Your task to perform on an android device: Open the phone app and click the voicemail tab. Image 0: 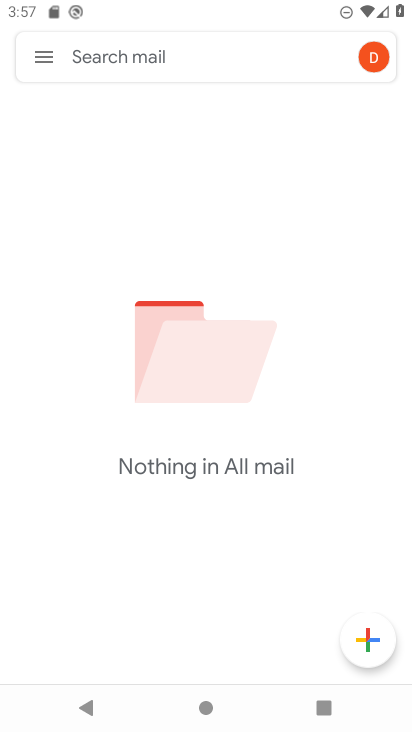
Step 0: press home button
Your task to perform on an android device: Open the phone app and click the voicemail tab. Image 1: 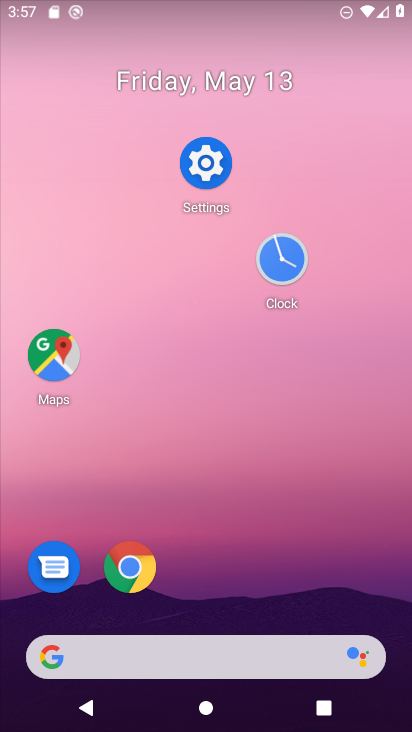
Step 1: drag from (237, 607) to (255, 234)
Your task to perform on an android device: Open the phone app and click the voicemail tab. Image 2: 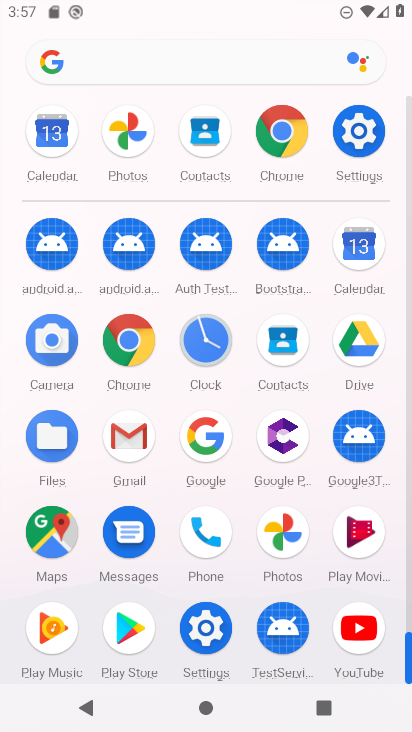
Step 2: click (217, 546)
Your task to perform on an android device: Open the phone app and click the voicemail tab. Image 3: 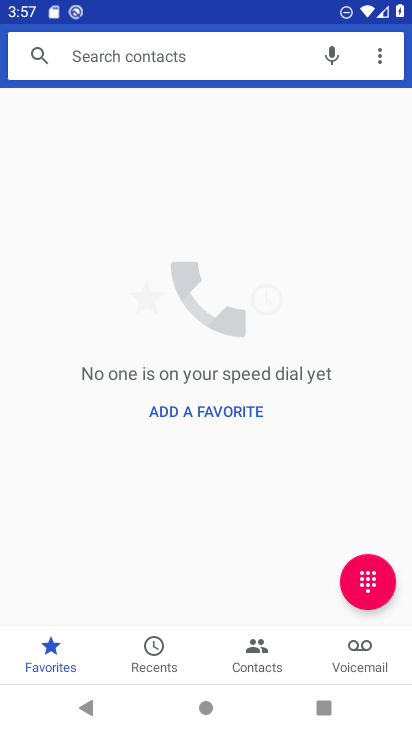
Step 3: click (361, 629)
Your task to perform on an android device: Open the phone app and click the voicemail tab. Image 4: 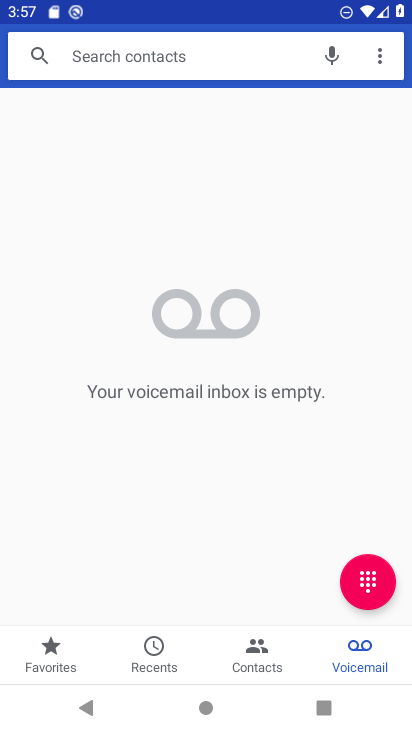
Step 4: task complete